Your task to perform on an android device: open device folders in google photos Image 0: 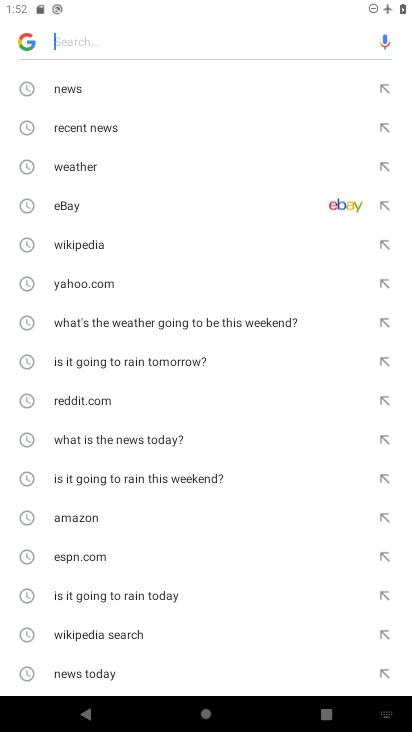
Step 0: press home button
Your task to perform on an android device: open device folders in google photos Image 1: 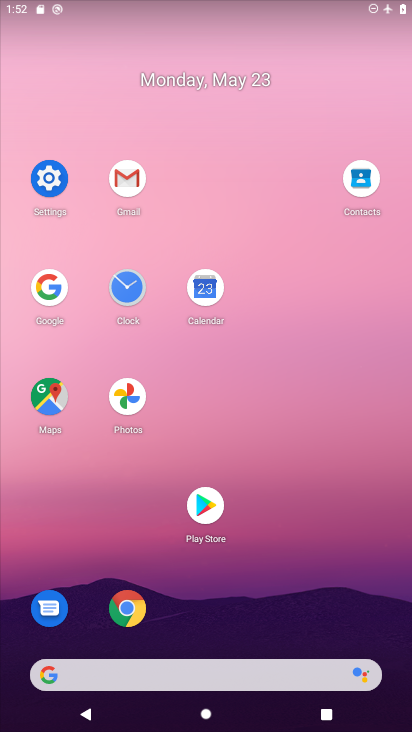
Step 1: click (116, 400)
Your task to perform on an android device: open device folders in google photos Image 2: 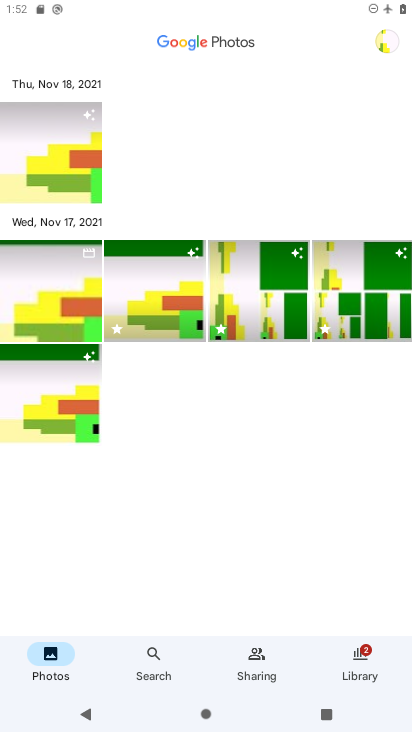
Step 2: click (378, 38)
Your task to perform on an android device: open device folders in google photos Image 3: 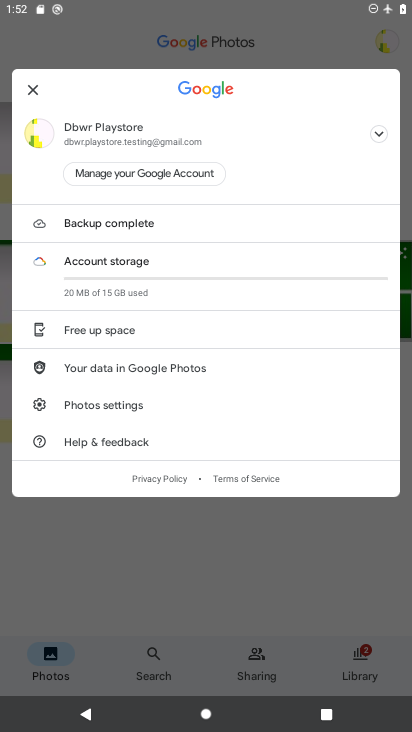
Step 3: task complete